Your task to perform on an android device: Show me popular games on the Play Store Image 0: 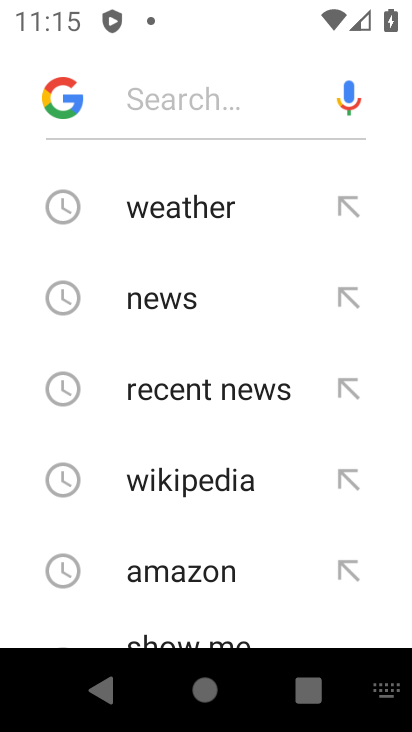
Step 0: press home button
Your task to perform on an android device: Show me popular games on the Play Store Image 1: 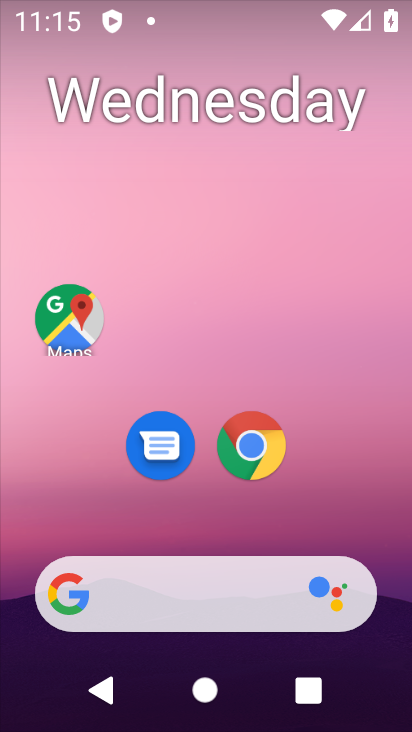
Step 1: drag from (367, 466) to (273, 20)
Your task to perform on an android device: Show me popular games on the Play Store Image 2: 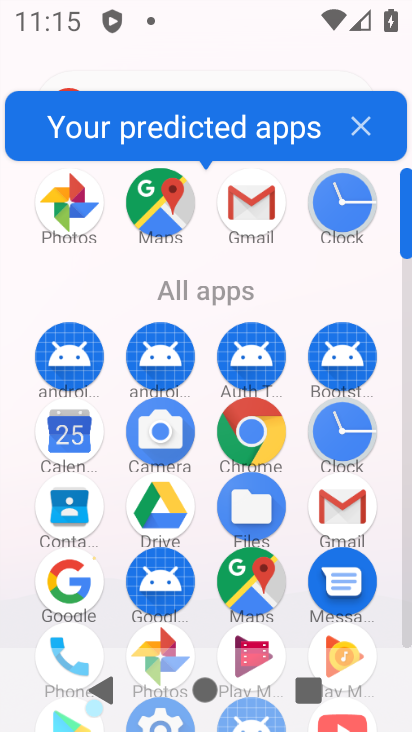
Step 2: drag from (189, 620) to (106, 82)
Your task to perform on an android device: Show me popular games on the Play Store Image 3: 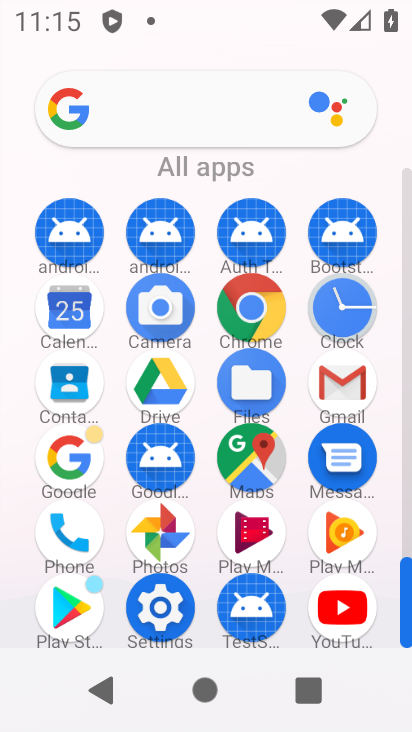
Step 3: click (78, 611)
Your task to perform on an android device: Show me popular games on the Play Store Image 4: 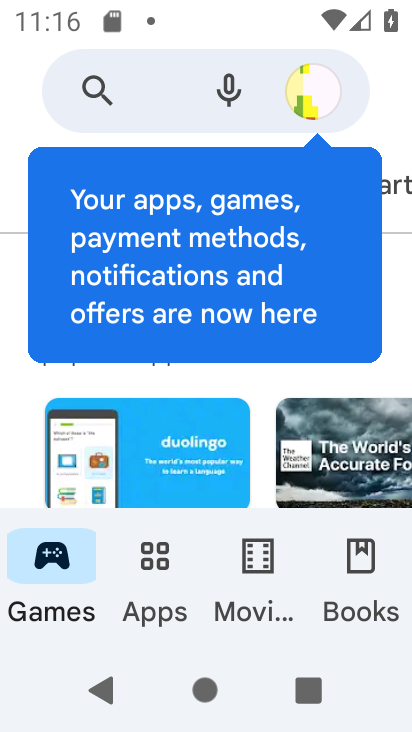
Step 4: task complete